Your task to perform on an android device: Go to battery settings Image 0: 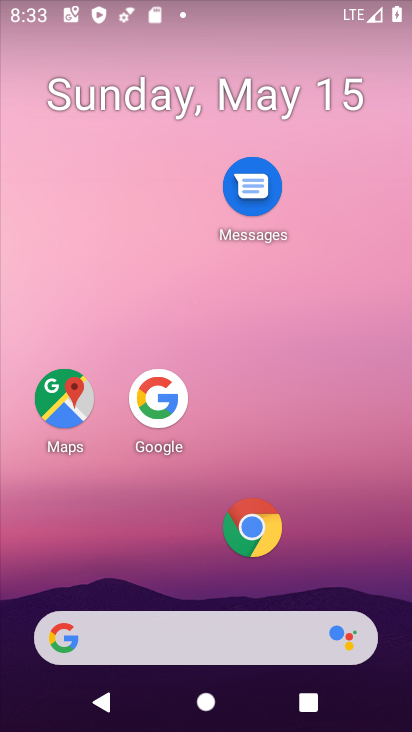
Step 0: press home button
Your task to perform on an android device: Go to battery settings Image 1: 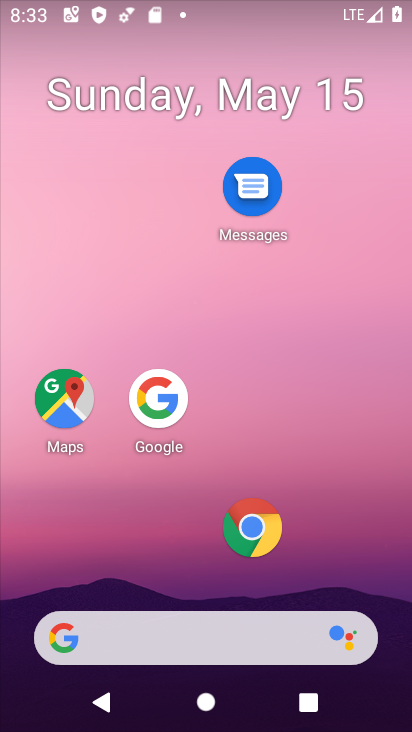
Step 1: drag from (252, 250) to (299, 96)
Your task to perform on an android device: Go to battery settings Image 2: 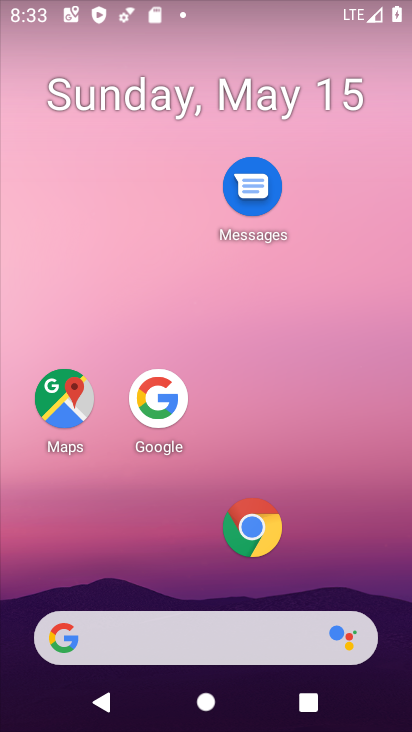
Step 2: drag from (209, 640) to (336, 126)
Your task to perform on an android device: Go to battery settings Image 3: 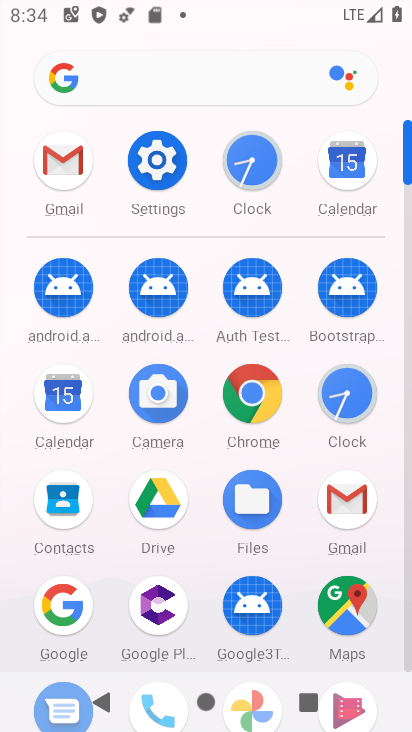
Step 3: click (136, 172)
Your task to perform on an android device: Go to battery settings Image 4: 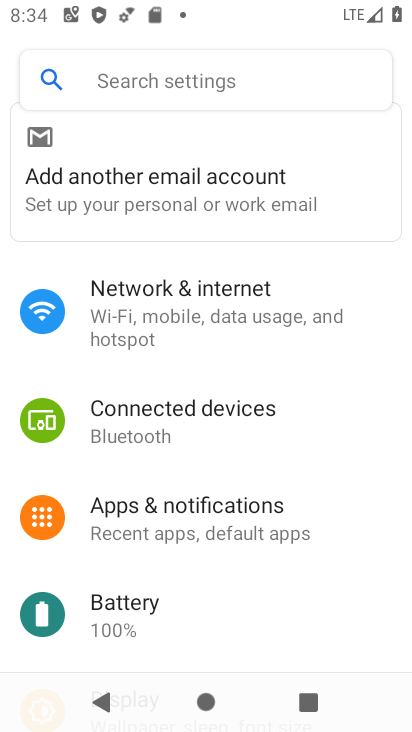
Step 4: click (117, 603)
Your task to perform on an android device: Go to battery settings Image 5: 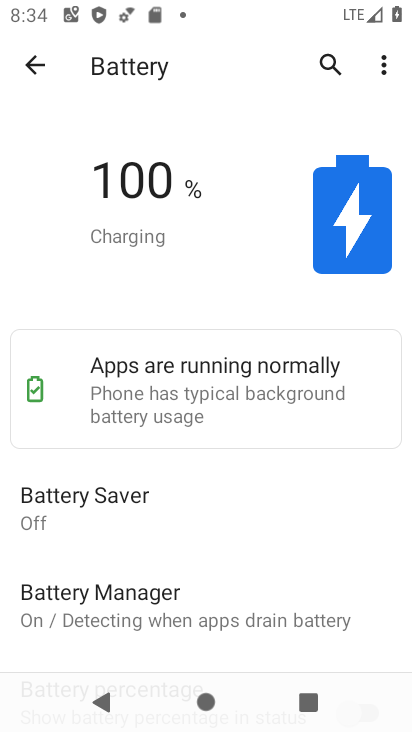
Step 5: task complete